Your task to perform on an android device: turn off location Image 0: 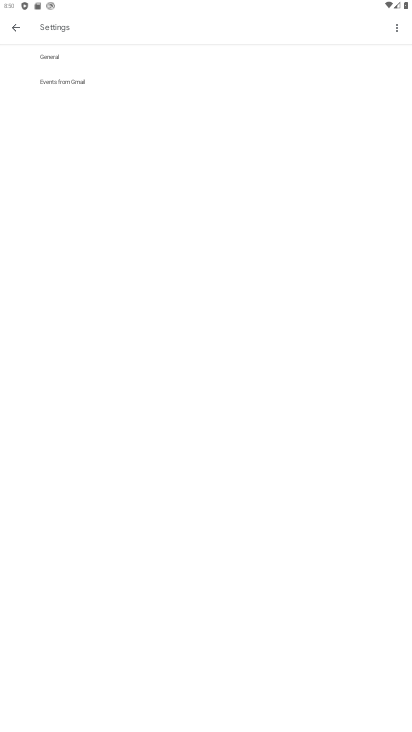
Step 0: press home button
Your task to perform on an android device: turn off location Image 1: 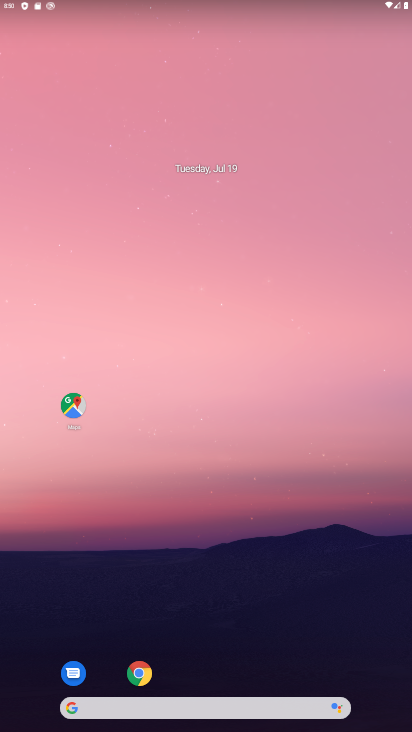
Step 1: drag from (216, 641) to (217, 75)
Your task to perform on an android device: turn off location Image 2: 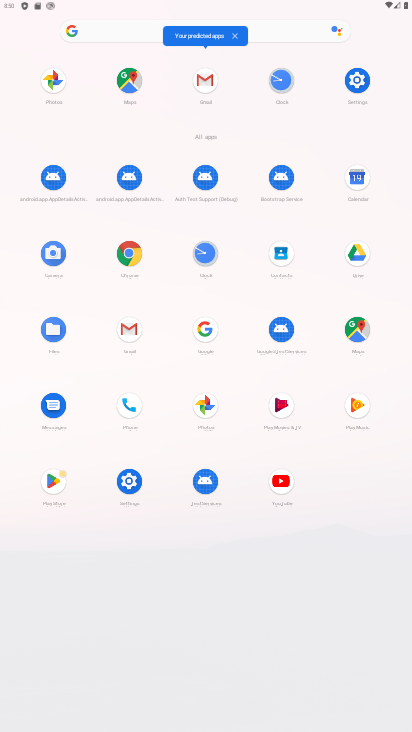
Step 2: click (371, 81)
Your task to perform on an android device: turn off location Image 3: 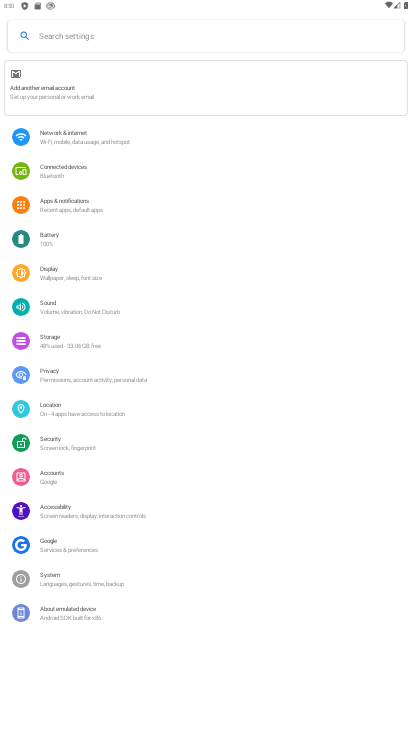
Step 3: drag from (112, 145) to (183, 68)
Your task to perform on an android device: turn off location Image 4: 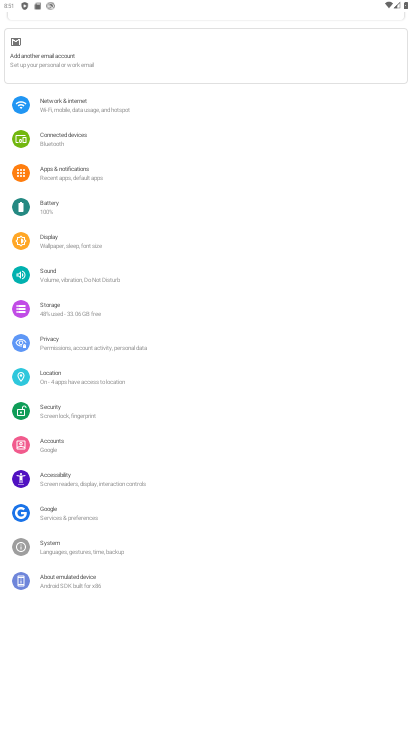
Step 4: click (80, 378)
Your task to perform on an android device: turn off location Image 5: 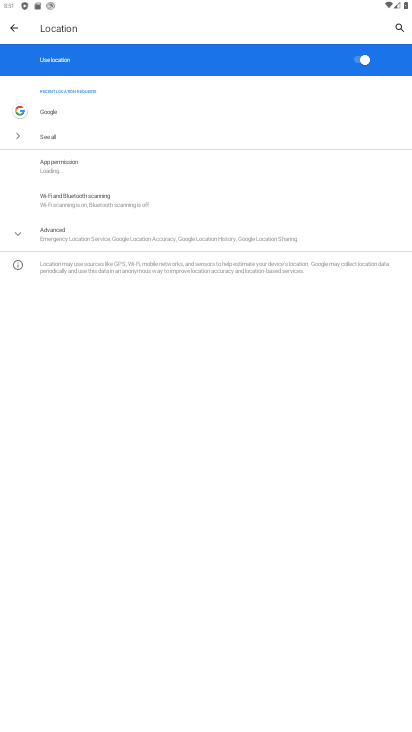
Step 5: click (364, 58)
Your task to perform on an android device: turn off location Image 6: 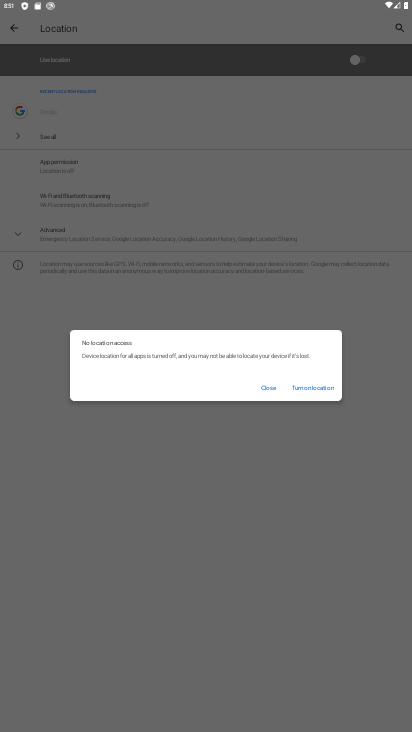
Step 6: task complete